Your task to perform on an android device: Set the phone to "Do not disturb". Image 0: 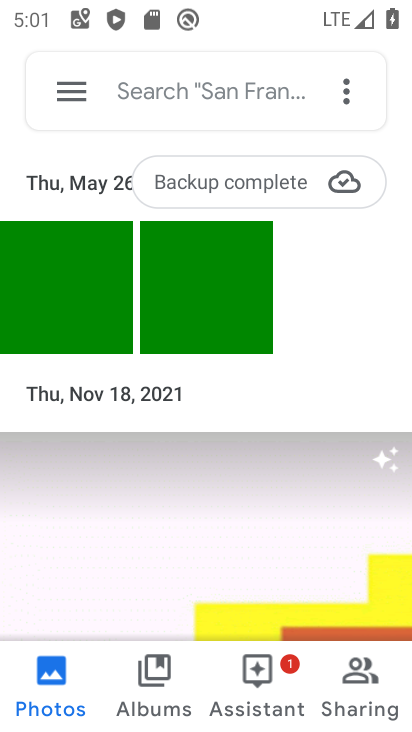
Step 0: press home button
Your task to perform on an android device: Set the phone to "Do not disturb". Image 1: 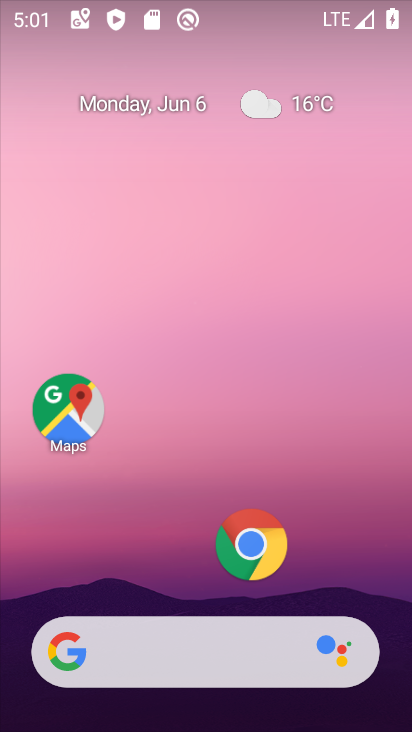
Step 1: drag from (244, 17) to (245, 503)
Your task to perform on an android device: Set the phone to "Do not disturb". Image 2: 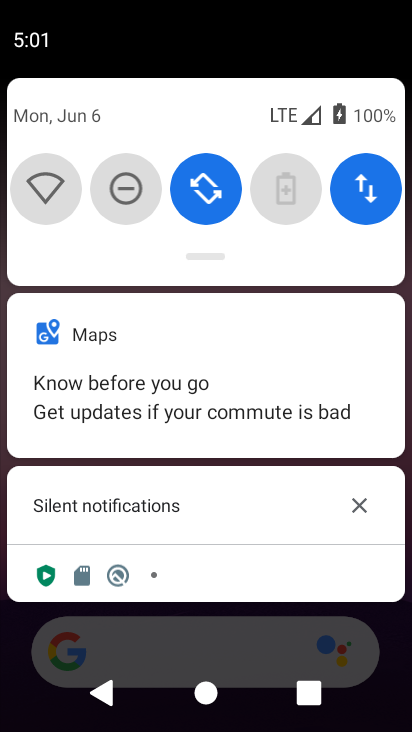
Step 2: click (126, 184)
Your task to perform on an android device: Set the phone to "Do not disturb". Image 3: 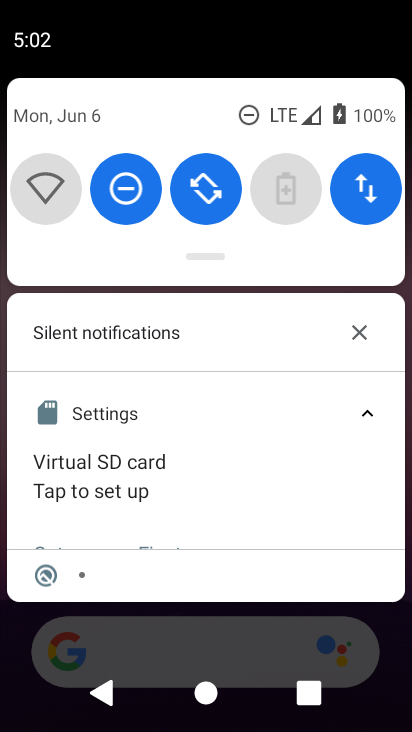
Step 3: task complete